Your task to perform on an android device: turn off priority inbox in the gmail app Image 0: 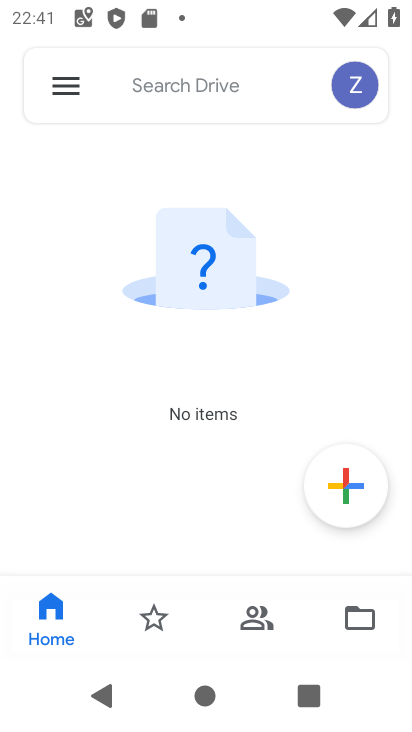
Step 0: press home button
Your task to perform on an android device: turn off priority inbox in the gmail app Image 1: 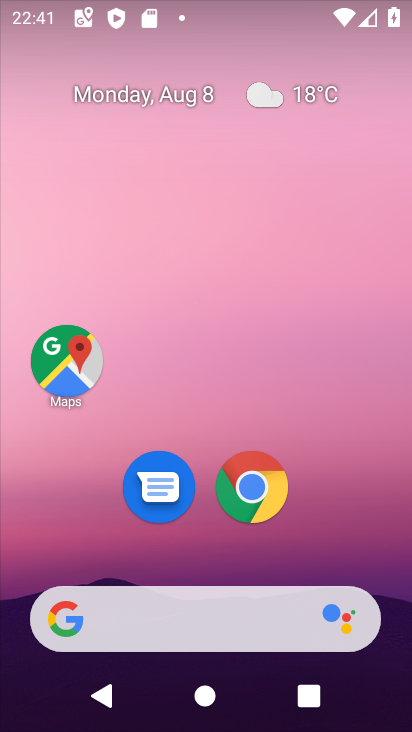
Step 1: drag from (204, 575) to (201, 36)
Your task to perform on an android device: turn off priority inbox in the gmail app Image 2: 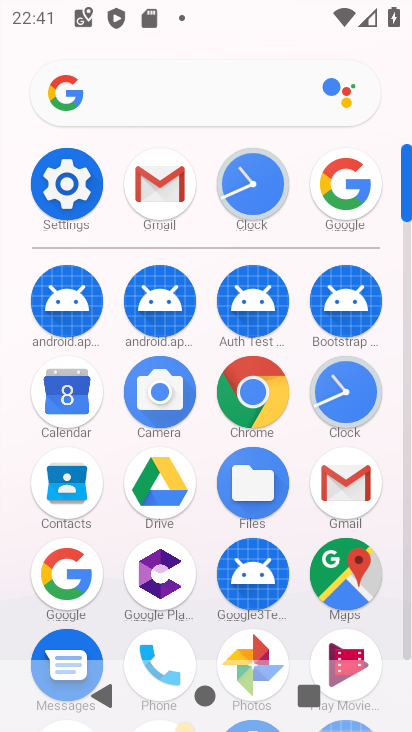
Step 2: click (340, 482)
Your task to perform on an android device: turn off priority inbox in the gmail app Image 3: 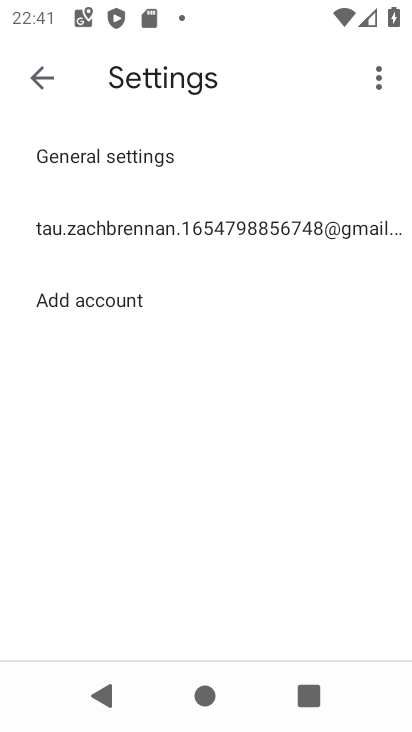
Step 3: click (201, 226)
Your task to perform on an android device: turn off priority inbox in the gmail app Image 4: 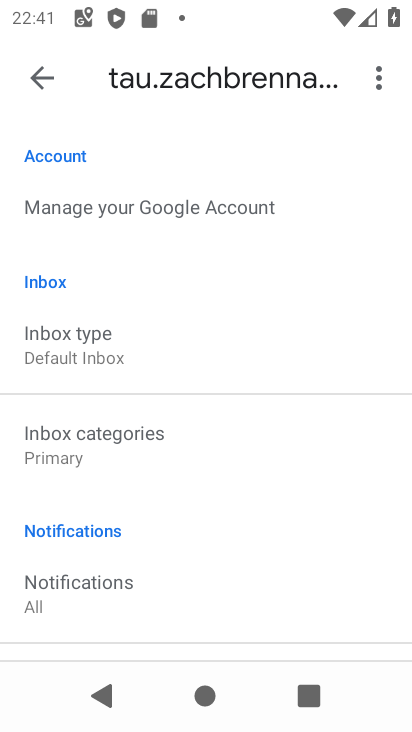
Step 4: task complete